Your task to perform on an android device: set default search engine in the chrome app Image 0: 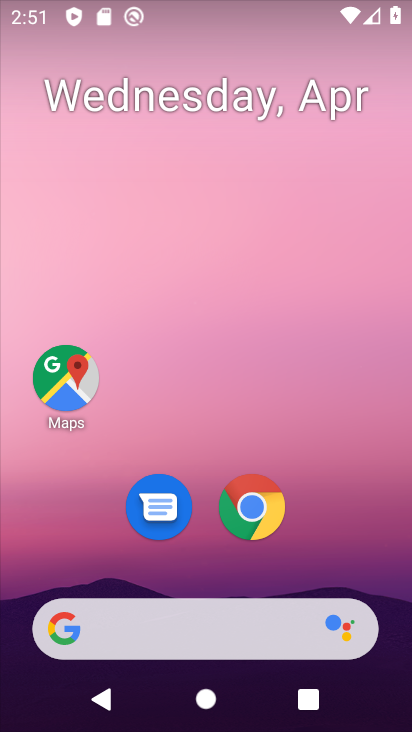
Step 0: drag from (376, 526) to (312, 53)
Your task to perform on an android device: set default search engine in the chrome app Image 1: 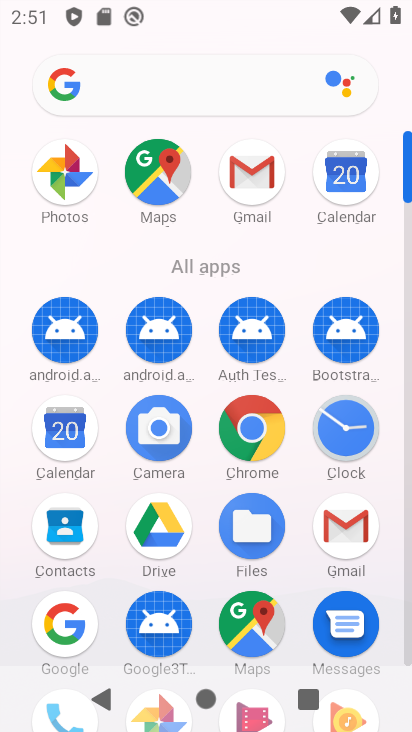
Step 1: click (248, 445)
Your task to perform on an android device: set default search engine in the chrome app Image 2: 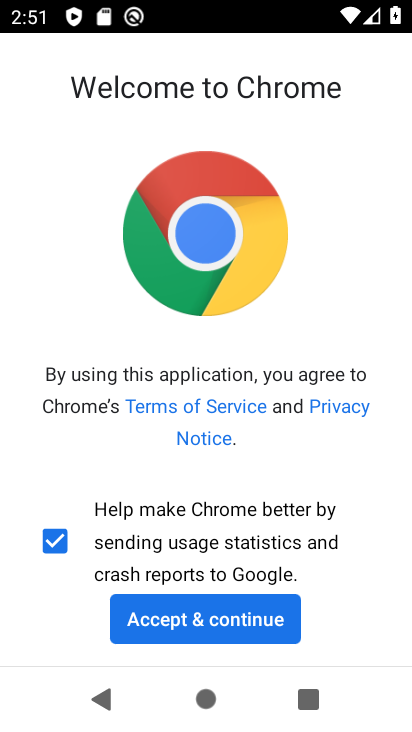
Step 2: click (221, 626)
Your task to perform on an android device: set default search engine in the chrome app Image 3: 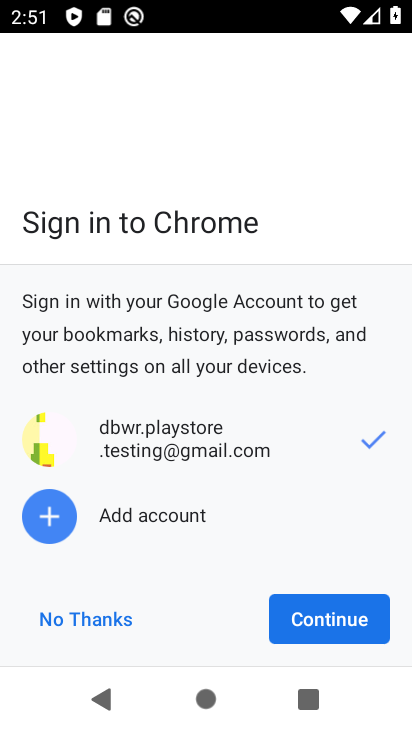
Step 3: click (345, 616)
Your task to perform on an android device: set default search engine in the chrome app Image 4: 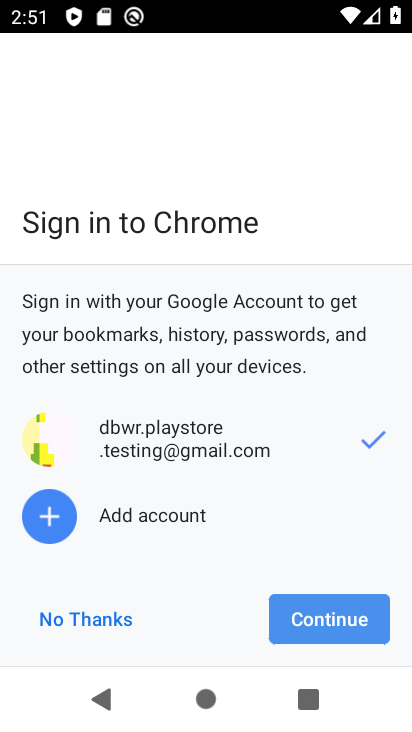
Step 4: click (345, 616)
Your task to perform on an android device: set default search engine in the chrome app Image 5: 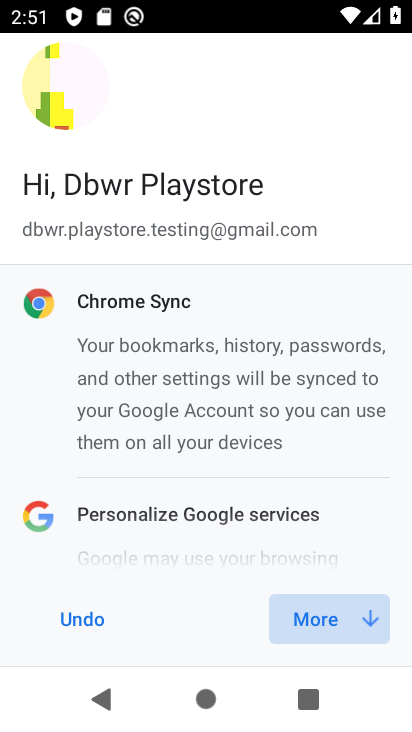
Step 5: click (345, 616)
Your task to perform on an android device: set default search engine in the chrome app Image 6: 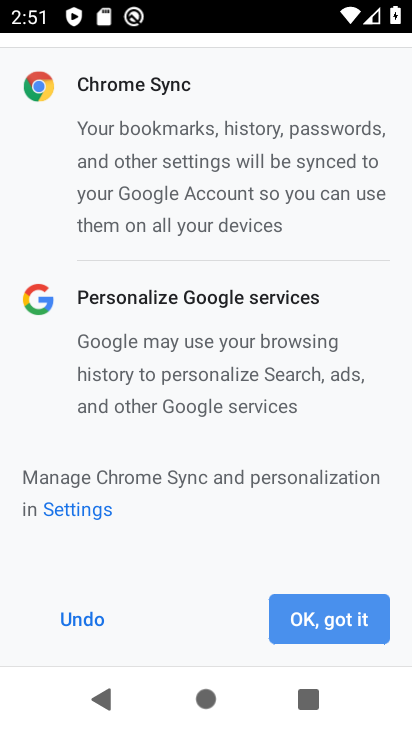
Step 6: click (345, 616)
Your task to perform on an android device: set default search engine in the chrome app Image 7: 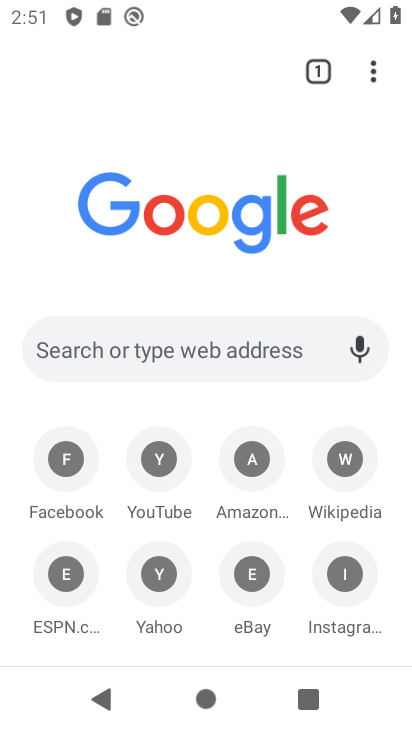
Step 7: drag from (377, 67) to (237, 477)
Your task to perform on an android device: set default search engine in the chrome app Image 8: 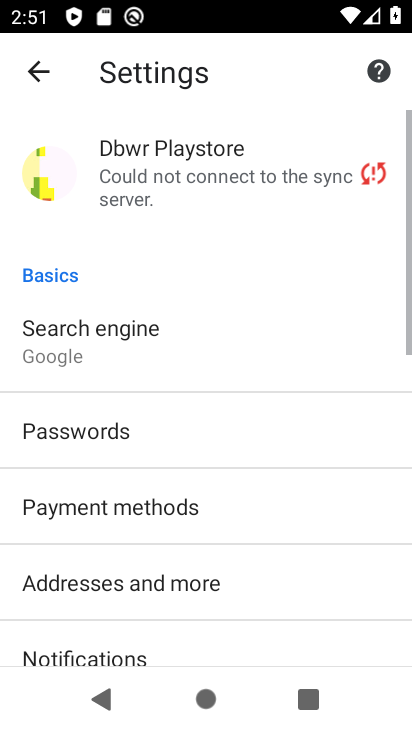
Step 8: drag from (80, 219) to (85, 353)
Your task to perform on an android device: set default search engine in the chrome app Image 9: 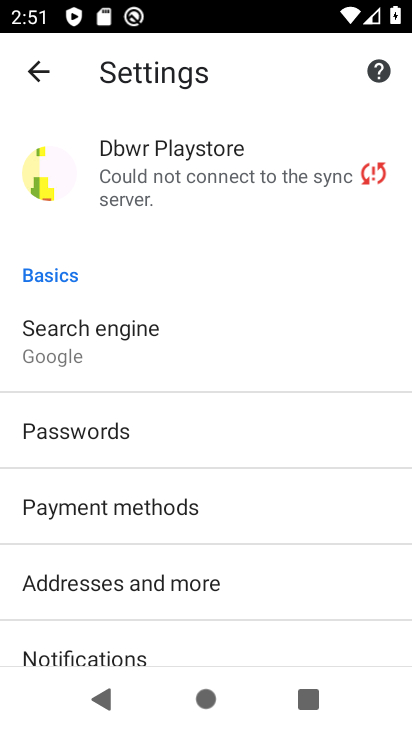
Step 9: click (216, 341)
Your task to perform on an android device: set default search engine in the chrome app Image 10: 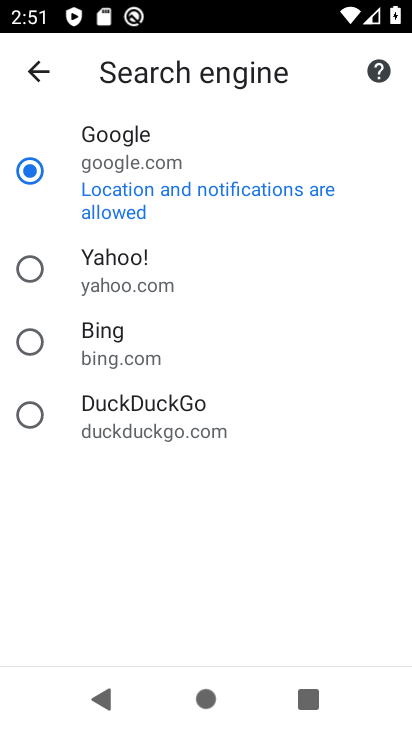
Step 10: task complete